Your task to perform on an android device: Open Google Chrome and click the shortcut for Amazon.com Image 0: 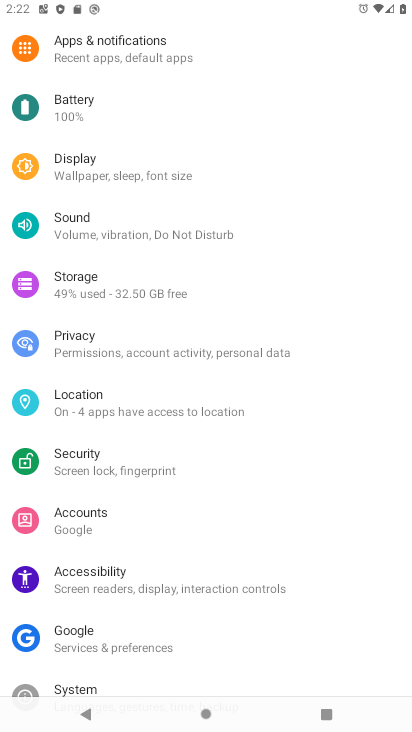
Step 0: press home button
Your task to perform on an android device: Open Google Chrome and click the shortcut for Amazon.com Image 1: 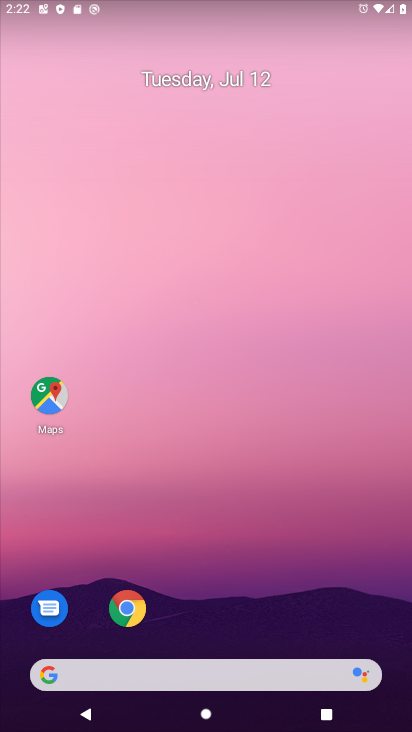
Step 1: drag from (278, 601) to (250, 143)
Your task to perform on an android device: Open Google Chrome and click the shortcut for Amazon.com Image 2: 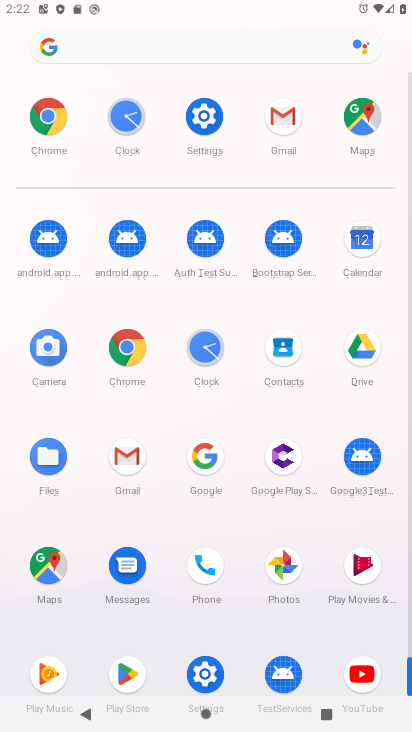
Step 2: click (122, 340)
Your task to perform on an android device: Open Google Chrome and click the shortcut for Amazon.com Image 3: 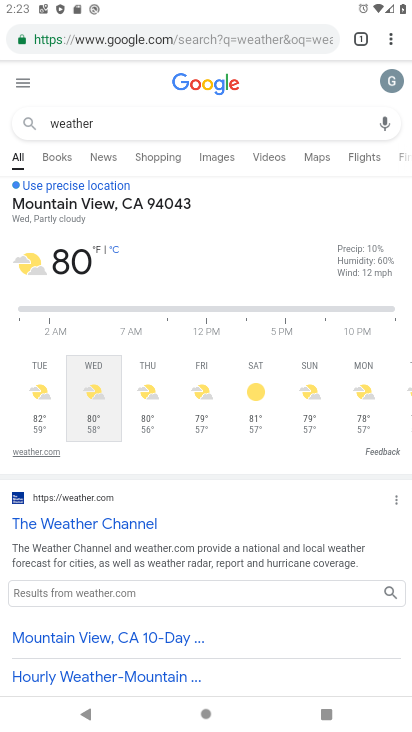
Step 3: drag from (397, 30) to (273, 134)
Your task to perform on an android device: Open Google Chrome and click the shortcut for Amazon.com Image 4: 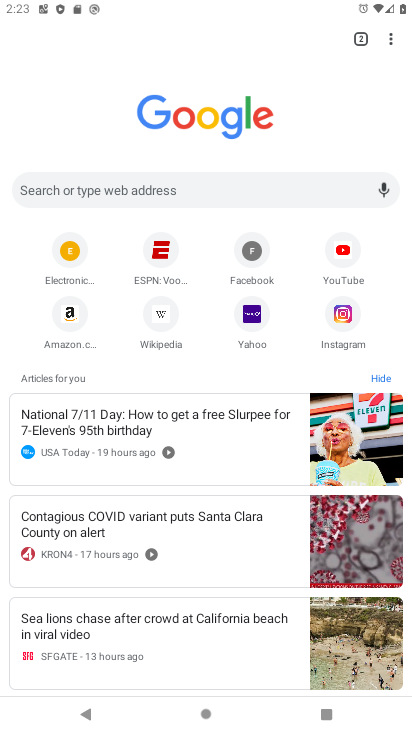
Step 4: click (67, 316)
Your task to perform on an android device: Open Google Chrome and click the shortcut for Amazon.com Image 5: 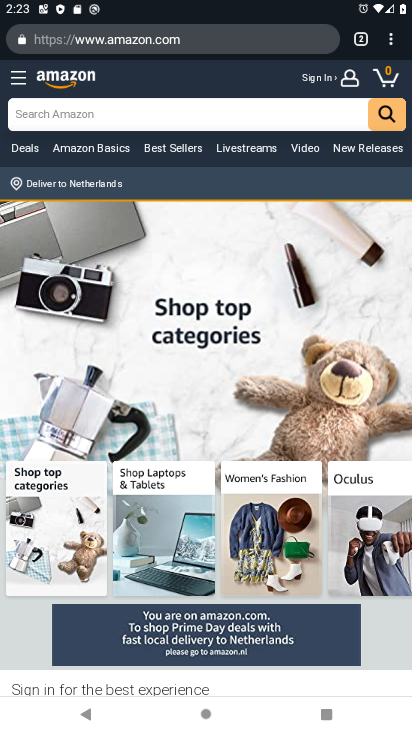
Step 5: task complete